Your task to perform on an android device: Go to eBay Image 0: 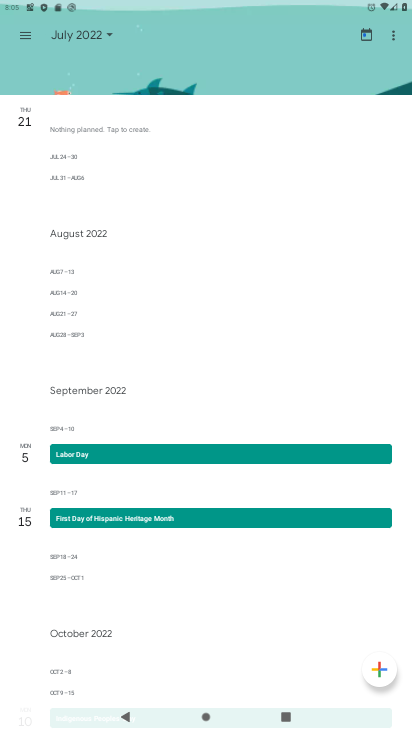
Step 0: press home button
Your task to perform on an android device: Go to eBay Image 1: 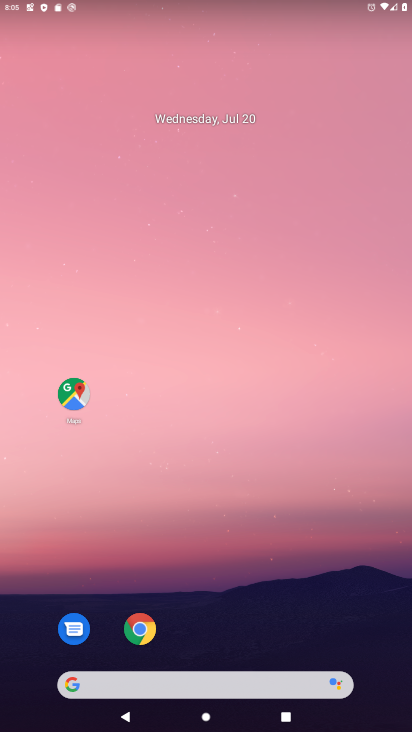
Step 1: click (142, 624)
Your task to perform on an android device: Go to eBay Image 2: 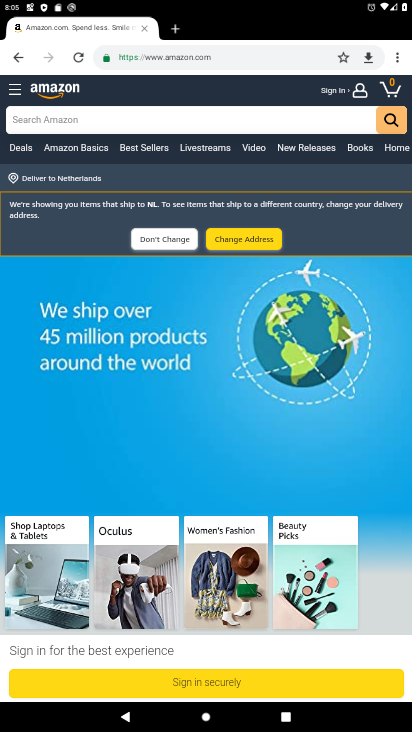
Step 2: click (160, 54)
Your task to perform on an android device: Go to eBay Image 3: 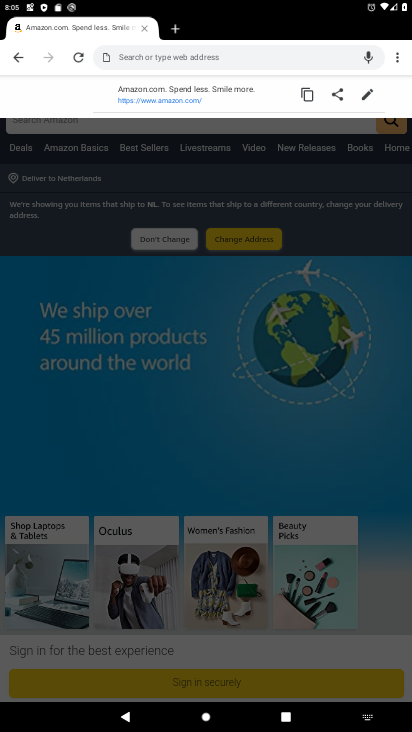
Step 3: type "www.ebay.com"
Your task to perform on an android device: Go to eBay Image 4: 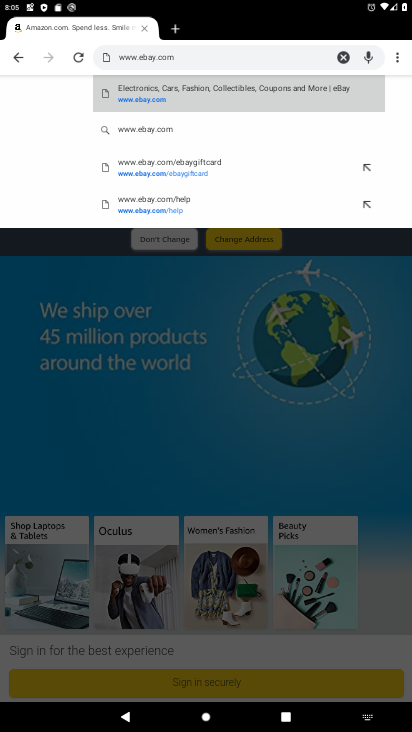
Step 4: click (152, 95)
Your task to perform on an android device: Go to eBay Image 5: 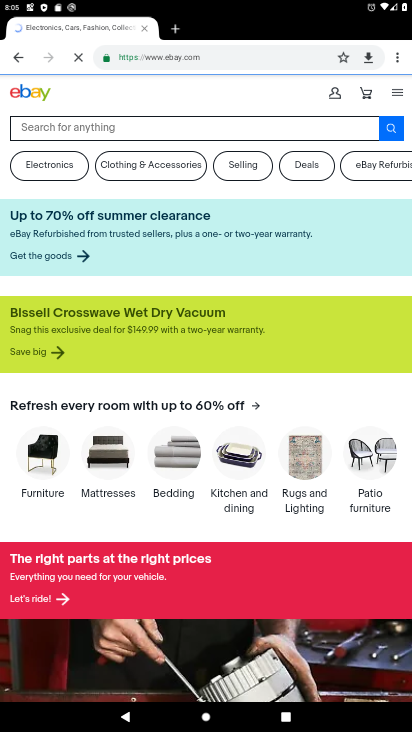
Step 5: task complete